Your task to perform on an android device: Search for Mexican restaurants on Maps Image 0: 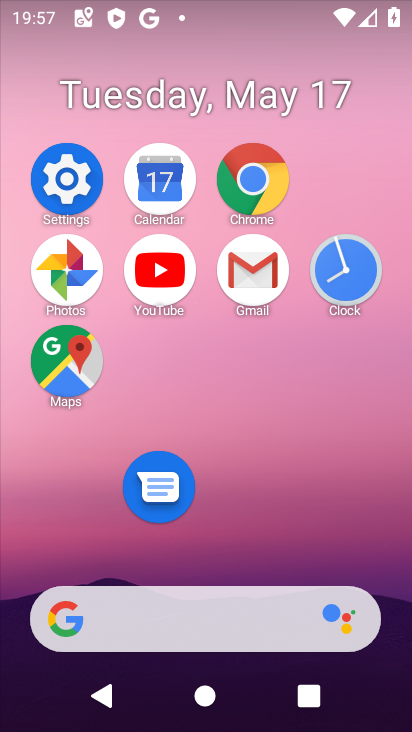
Step 0: click (83, 344)
Your task to perform on an android device: Search for Mexican restaurants on Maps Image 1: 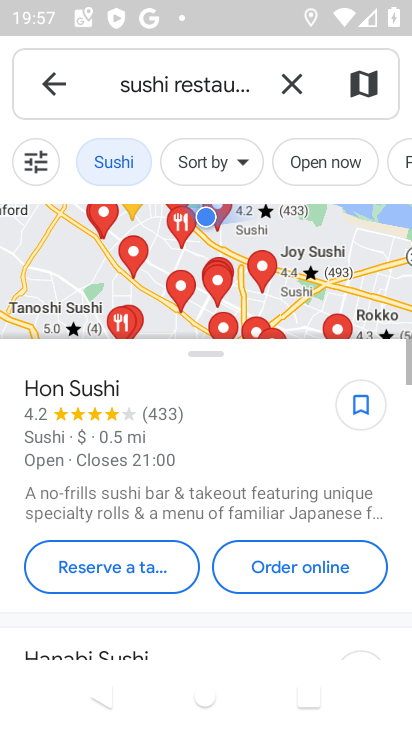
Step 1: click (292, 87)
Your task to perform on an android device: Search for Mexican restaurants on Maps Image 2: 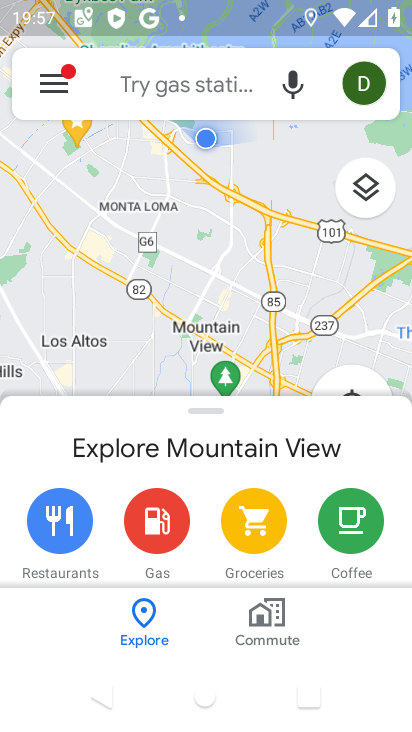
Step 2: click (133, 80)
Your task to perform on an android device: Search for Mexican restaurants on Maps Image 3: 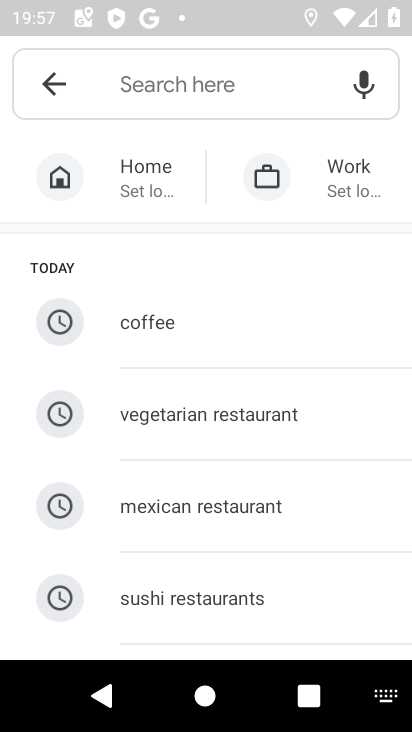
Step 3: click (244, 514)
Your task to perform on an android device: Search for Mexican restaurants on Maps Image 4: 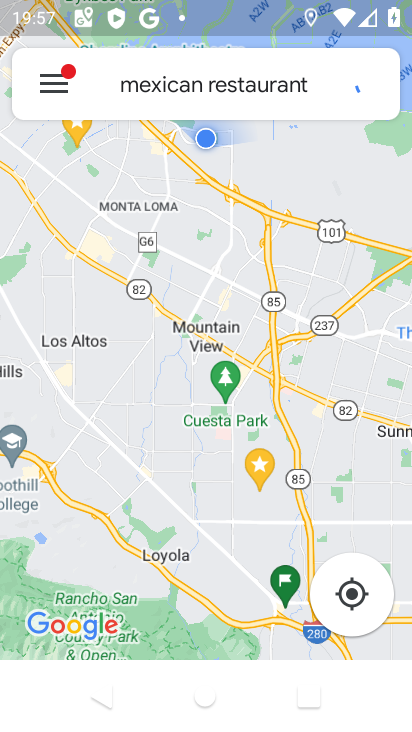
Step 4: task complete